Your task to perform on an android device: turn off priority inbox in the gmail app Image 0: 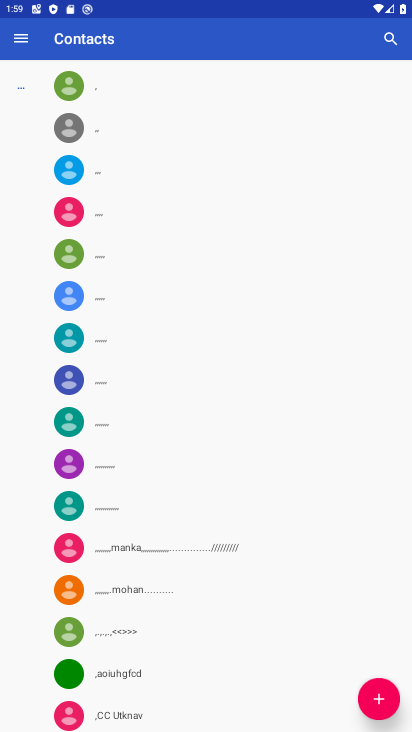
Step 0: press home button
Your task to perform on an android device: turn off priority inbox in the gmail app Image 1: 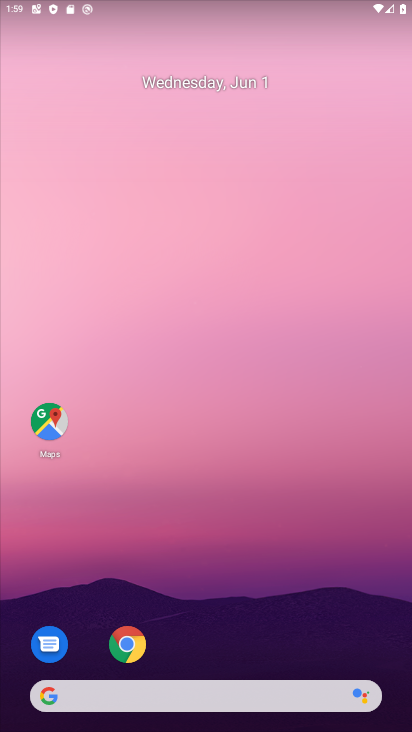
Step 1: drag from (192, 645) to (209, 312)
Your task to perform on an android device: turn off priority inbox in the gmail app Image 2: 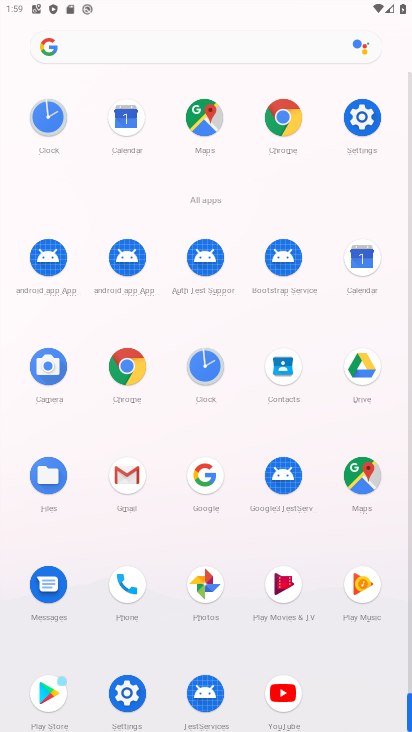
Step 2: click (114, 496)
Your task to perform on an android device: turn off priority inbox in the gmail app Image 3: 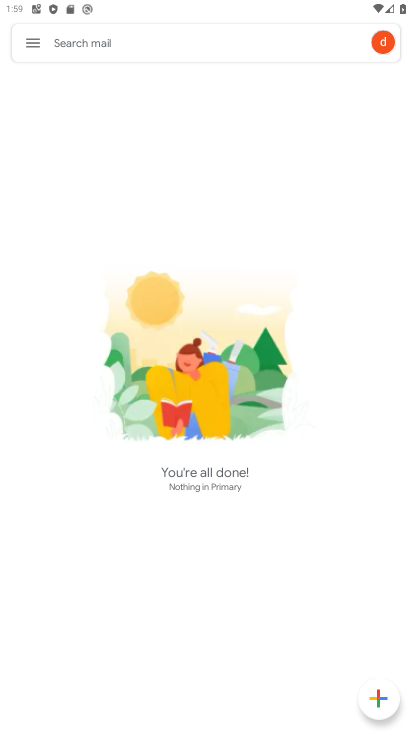
Step 3: click (41, 44)
Your task to perform on an android device: turn off priority inbox in the gmail app Image 4: 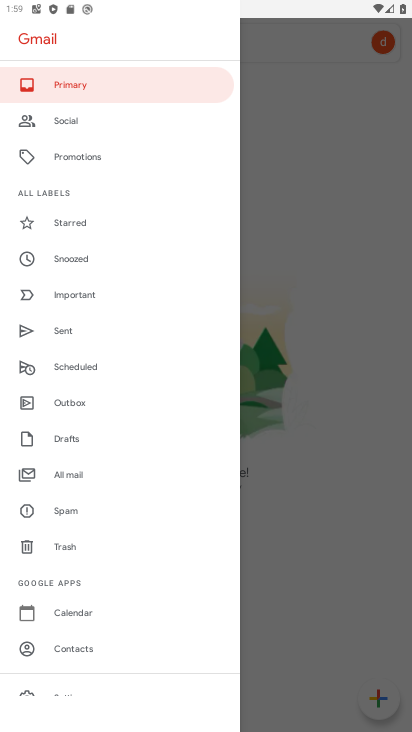
Step 4: drag from (30, 594) to (3, 307)
Your task to perform on an android device: turn off priority inbox in the gmail app Image 5: 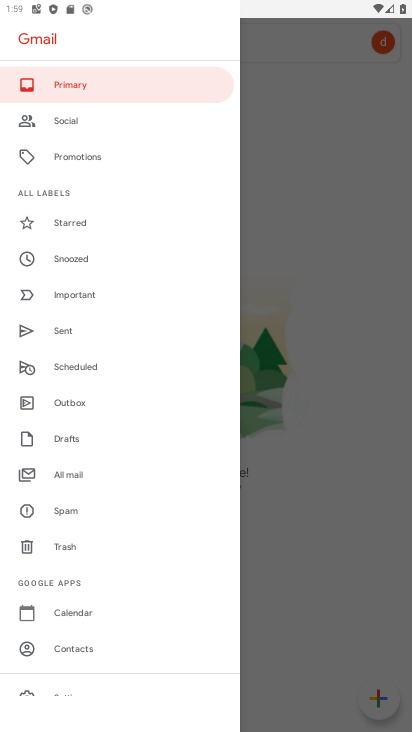
Step 5: drag from (117, 578) to (89, 218)
Your task to perform on an android device: turn off priority inbox in the gmail app Image 6: 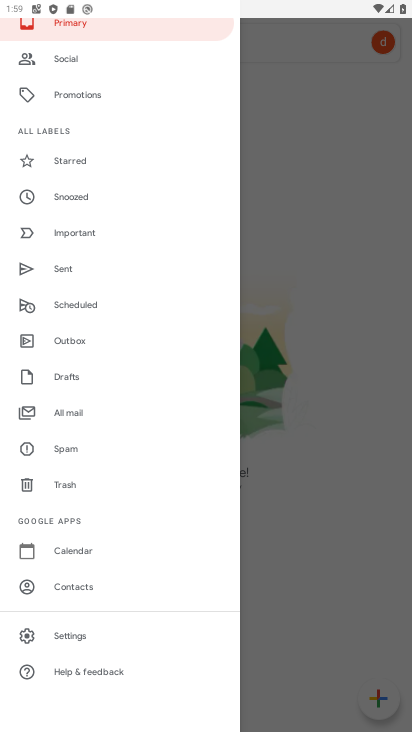
Step 6: click (64, 635)
Your task to perform on an android device: turn off priority inbox in the gmail app Image 7: 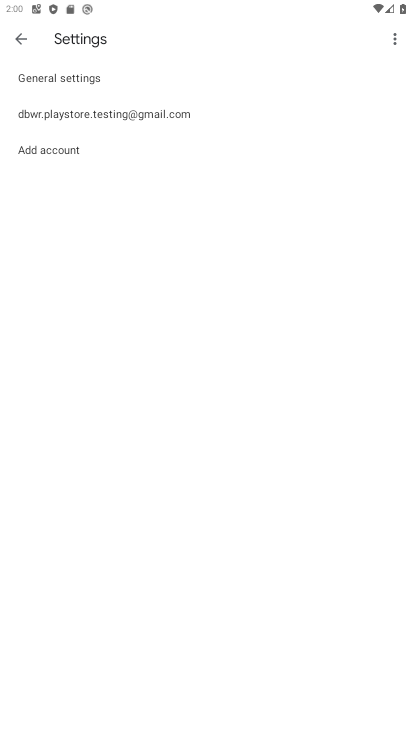
Step 7: click (68, 122)
Your task to perform on an android device: turn off priority inbox in the gmail app Image 8: 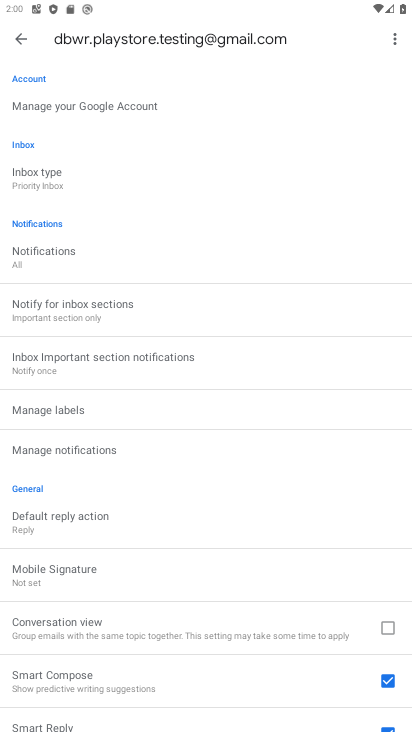
Step 8: click (42, 185)
Your task to perform on an android device: turn off priority inbox in the gmail app Image 9: 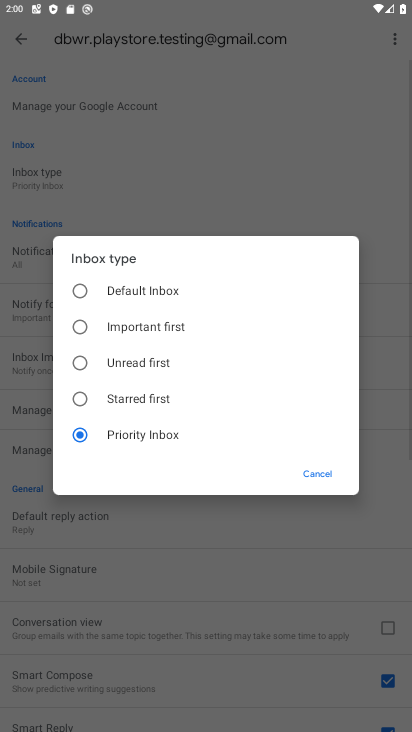
Step 9: click (120, 290)
Your task to perform on an android device: turn off priority inbox in the gmail app Image 10: 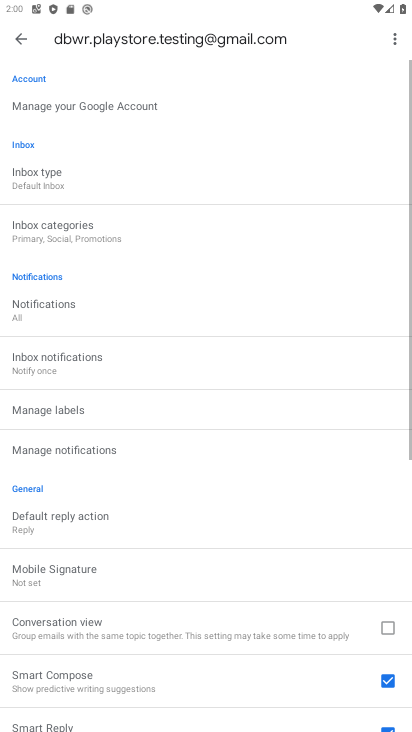
Step 10: task complete